Your task to perform on an android device: turn off location history Image 0: 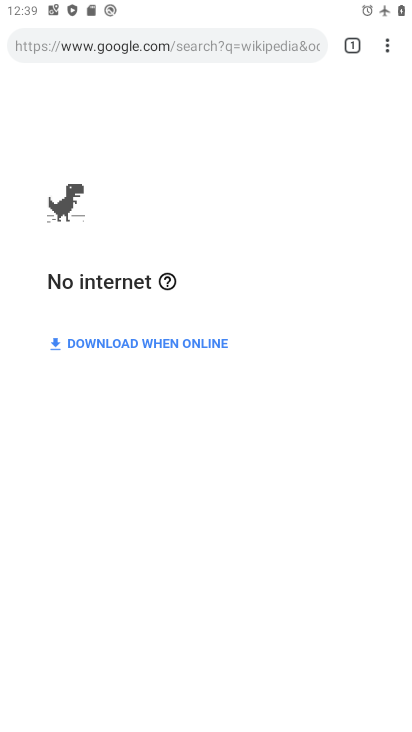
Step 0: press home button
Your task to perform on an android device: turn off location history Image 1: 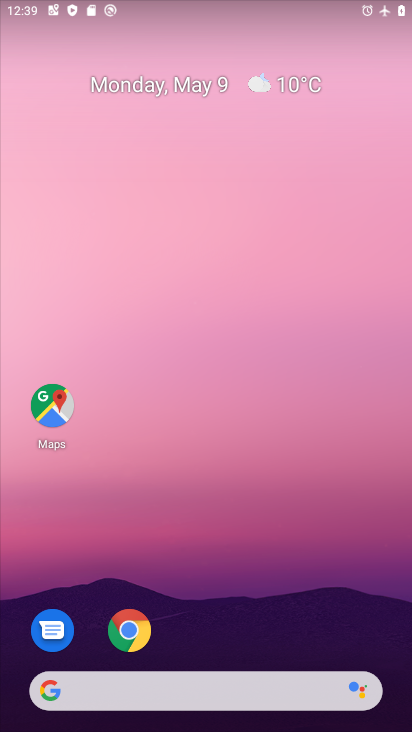
Step 1: drag from (339, 596) to (265, 81)
Your task to perform on an android device: turn off location history Image 2: 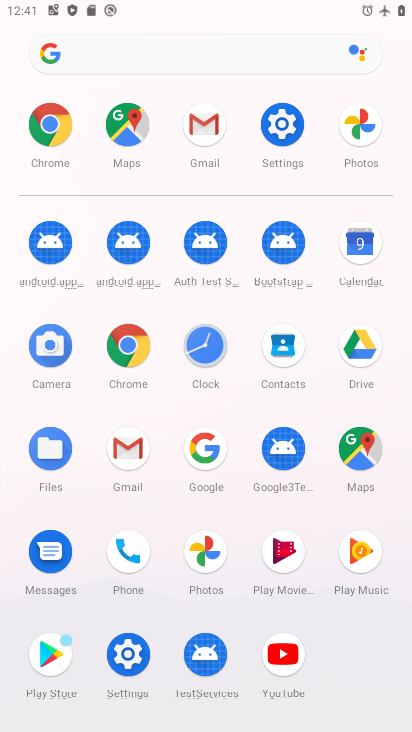
Step 2: click (146, 654)
Your task to perform on an android device: turn off location history Image 3: 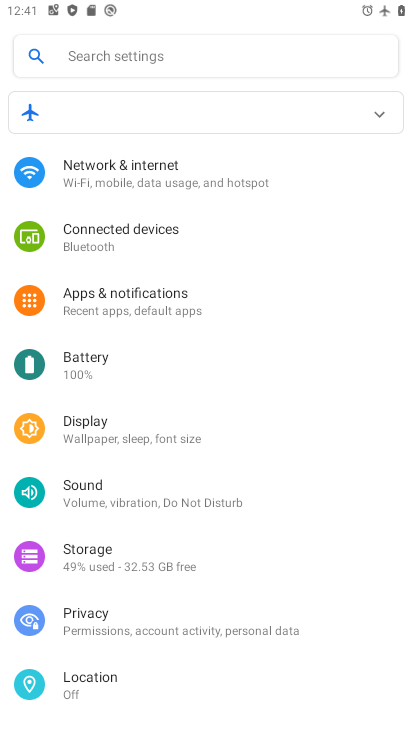
Step 3: click (104, 690)
Your task to perform on an android device: turn off location history Image 4: 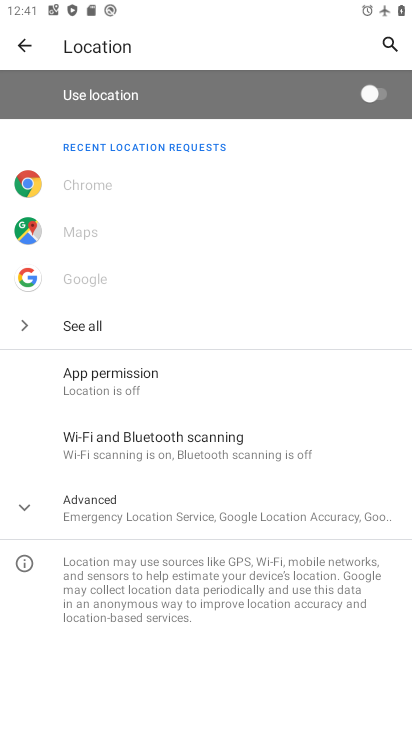
Step 4: click (186, 498)
Your task to perform on an android device: turn off location history Image 5: 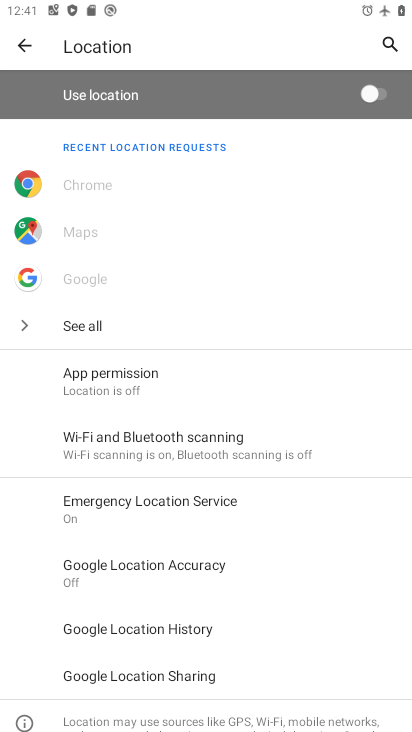
Step 5: click (187, 626)
Your task to perform on an android device: turn off location history Image 6: 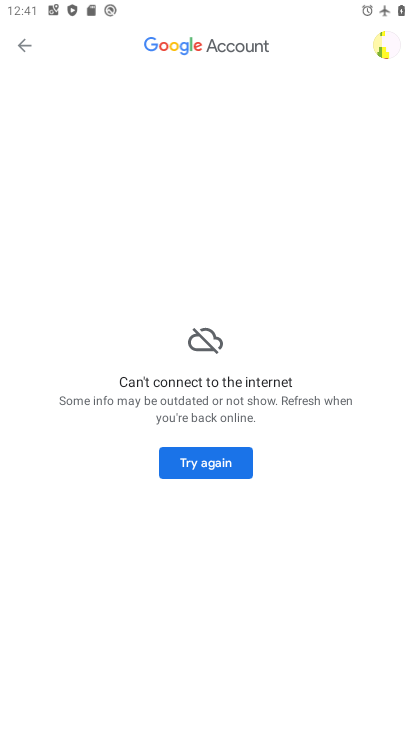
Step 6: task complete